Your task to perform on an android device: Open sound settings Image 0: 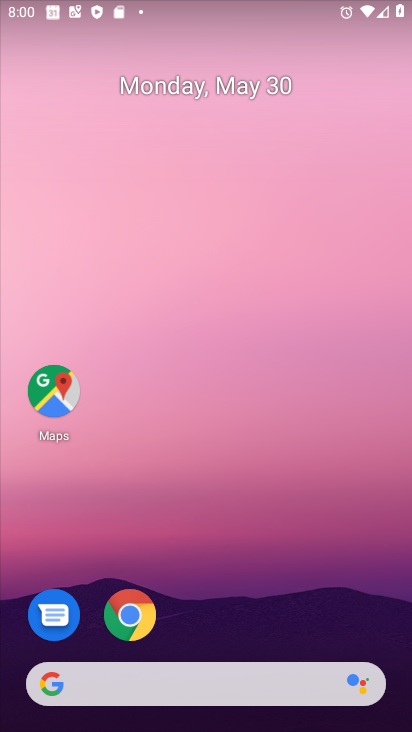
Step 0: drag from (261, 506) to (236, 12)
Your task to perform on an android device: Open sound settings Image 1: 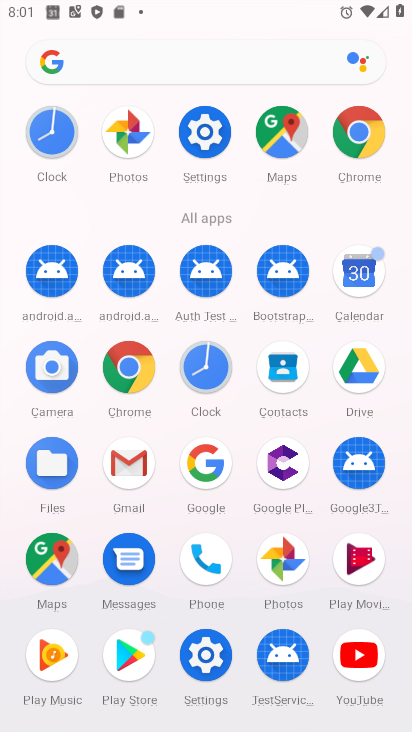
Step 1: click (212, 123)
Your task to perform on an android device: Open sound settings Image 2: 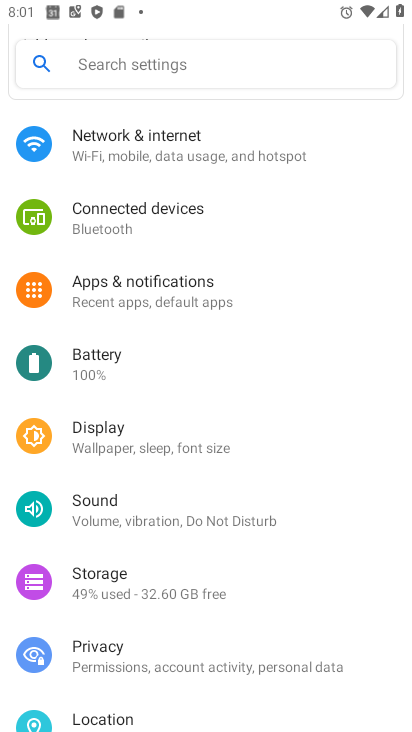
Step 2: click (142, 508)
Your task to perform on an android device: Open sound settings Image 3: 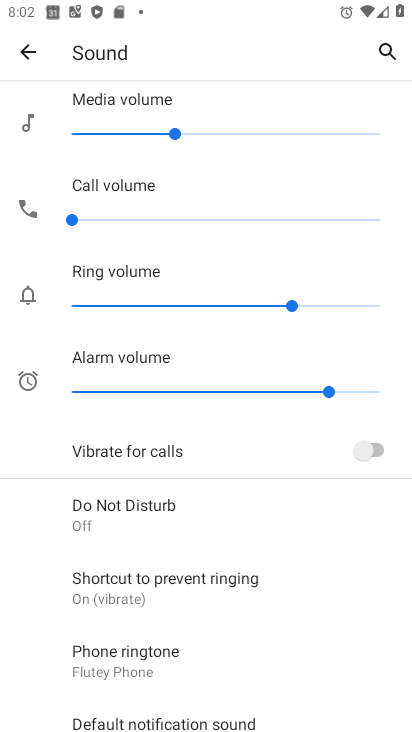
Step 3: task complete